Your task to perform on an android device: empty trash in the gmail app Image 0: 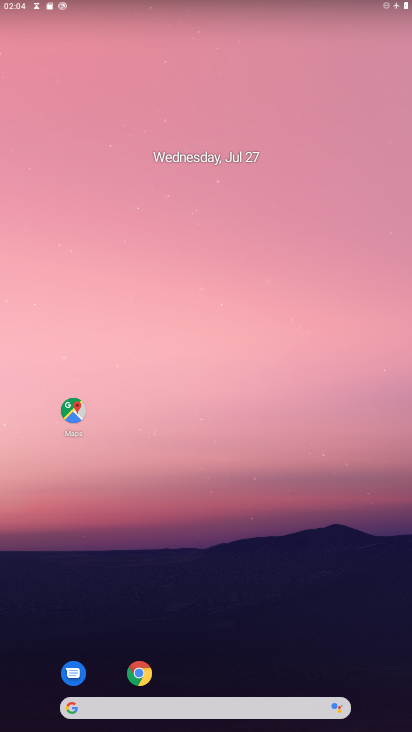
Step 0: drag from (128, 679) to (245, 131)
Your task to perform on an android device: empty trash in the gmail app Image 1: 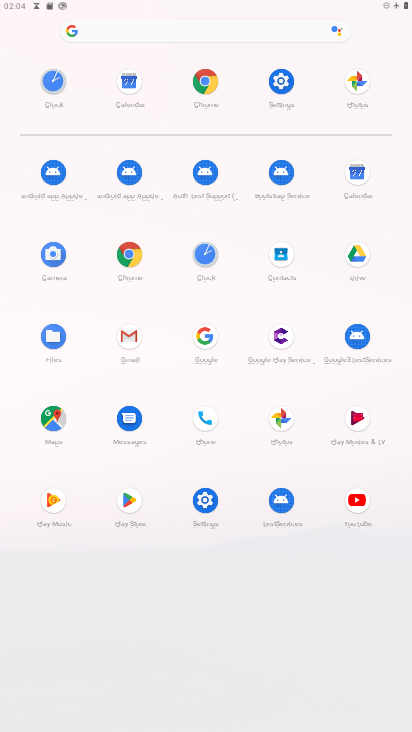
Step 1: click (130, 328)
Your task to perform on an android device: empty trash in the gmail app Image 2: 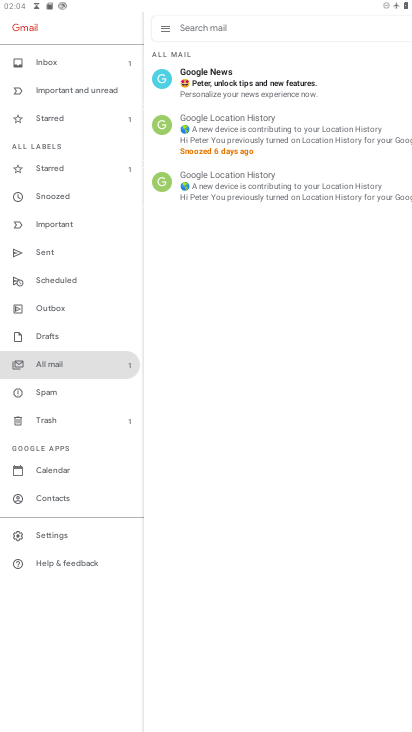
Step 2: click (50, 420)
Your task to perform on an android device: empty trash in the gmail app Image 3: 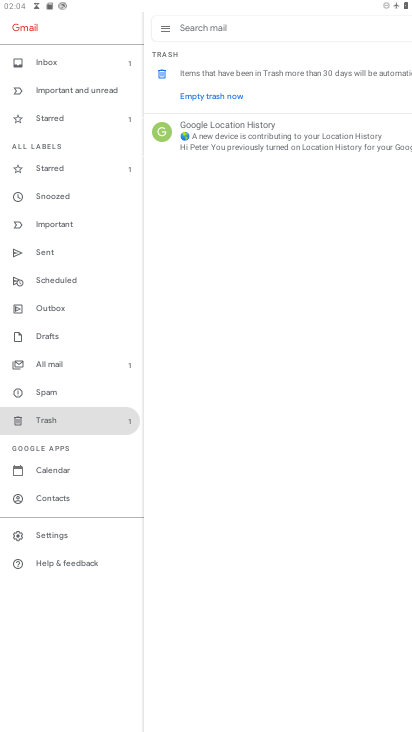
Step 3: click (205, 99)
Your task to perform on an android device: empty trash in the gmail app Image 4: 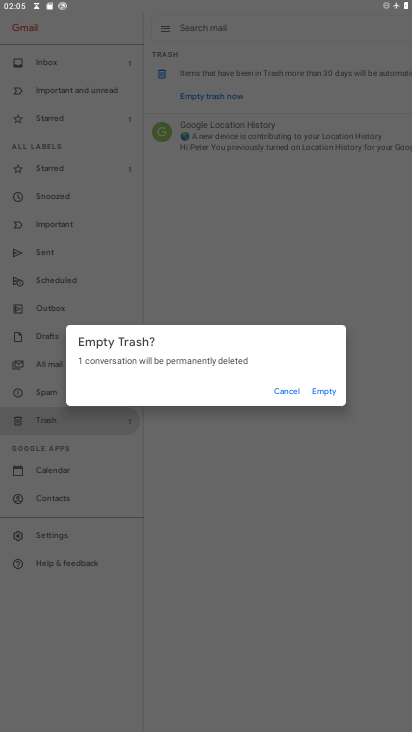
Step 4: click (319, 379)
Your task to perform on an android device: empty trash in the gmail app Image 5: 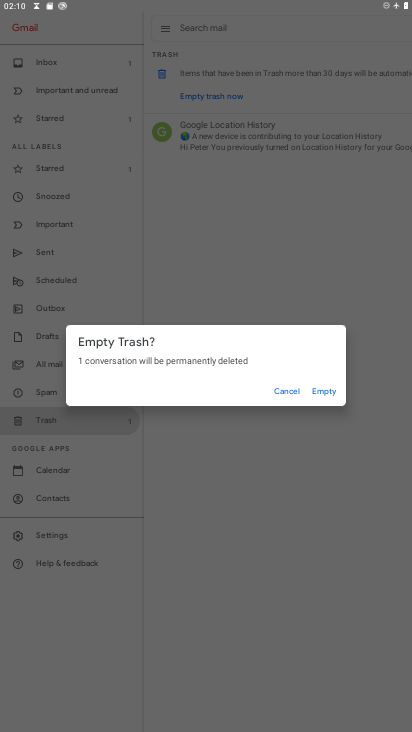
Step 5: click (320, 395)
Your task to perform on an android device: empty trash in the gmail app Image 6: 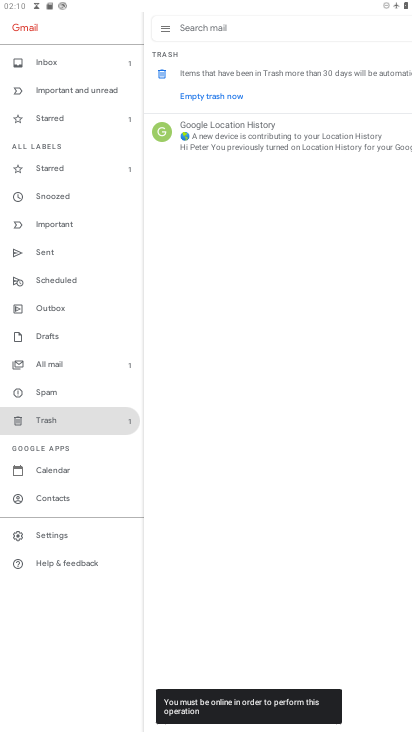
Step 6: task complete